Your task to perform on an android device: turn on priority inbox in the gmail app Image 0: 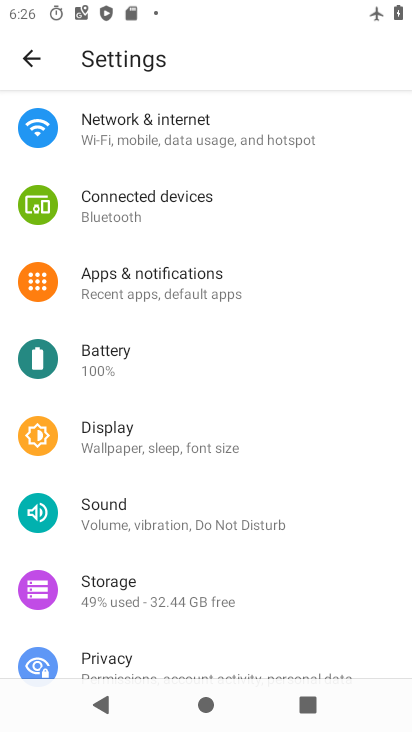
Step 0: press home button
Your task to perform on an android device: turn on priority inbox in the gmail app Image 1: 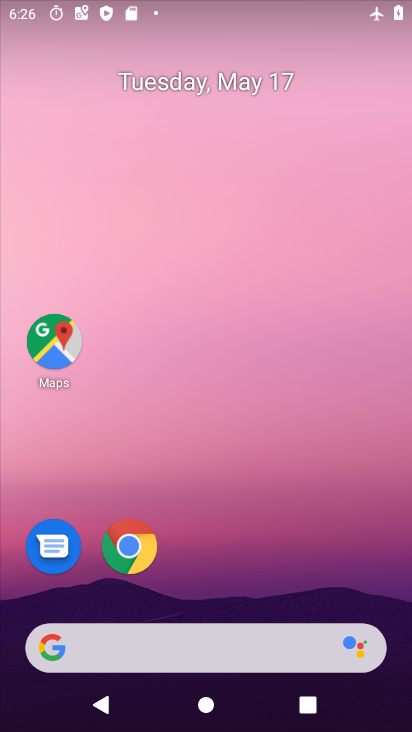
Step 1: drag from (199, 351) to (226, 118)
Your task to perform on an android device: turn on priority inbox in the gmail app Image 2: 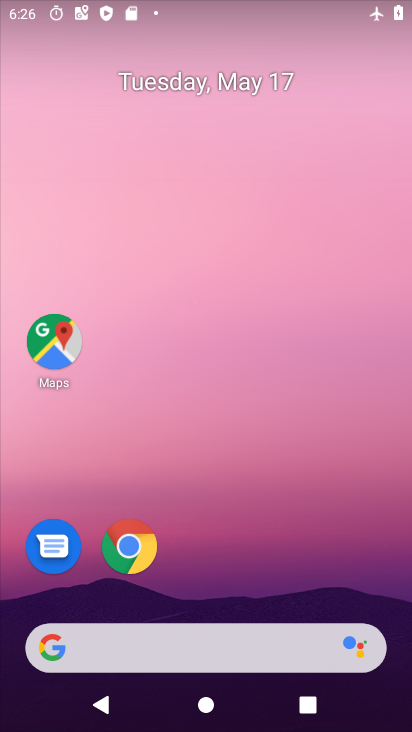
Step 2: drag from (168, 291) to (182, 138)
Your task to perform on an android device: turn on priority inbox in the gmail app Image 3: 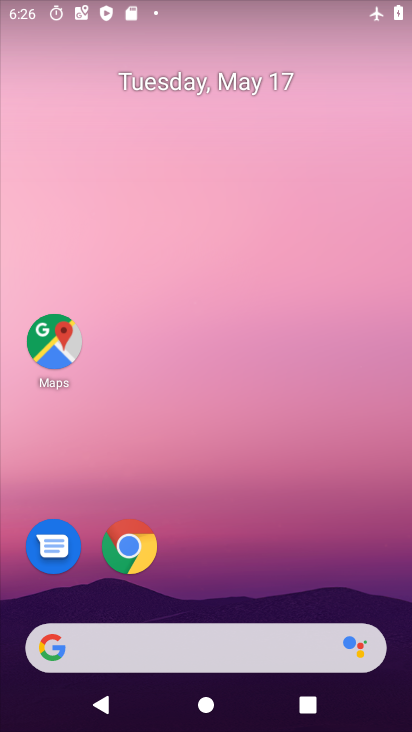
Step 3: drag from (208, 406) to (211, 70)
Your task to perform on an android device: turn on priority inbox in the gmail app Image 4: 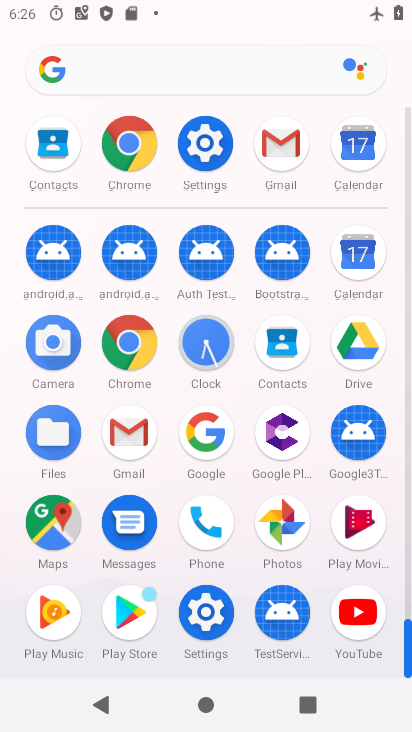
Step 4: click (279, 147)
Your task to perform on an android device: turn on priority inbox in the gmail app Image 5: 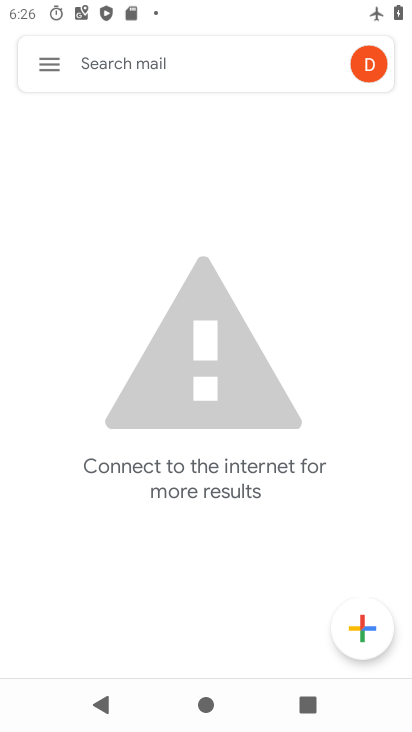
Step 5: click (59, 68)
Your task to perform on an android device: turn on priority inbox in the gmail app Image 6: 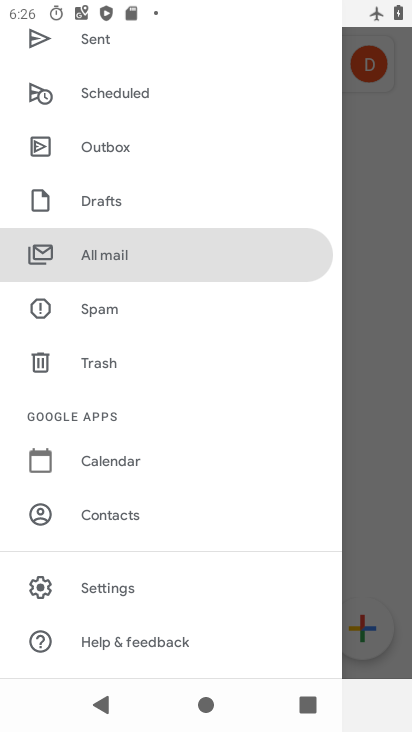
Step 6: click (103, 590)
Your task to perform on an android device: turn on priority inbox in the gmail app Image 7: 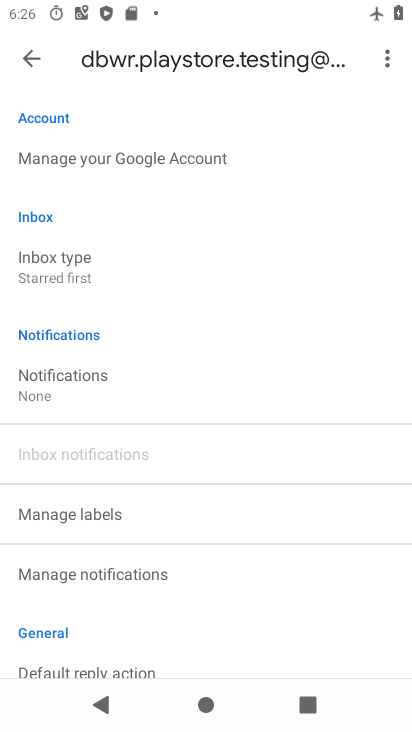
Step 7: click (65, 273)
Your task to perform on an android device: turn on priority inbox in the gmail app Image 8: 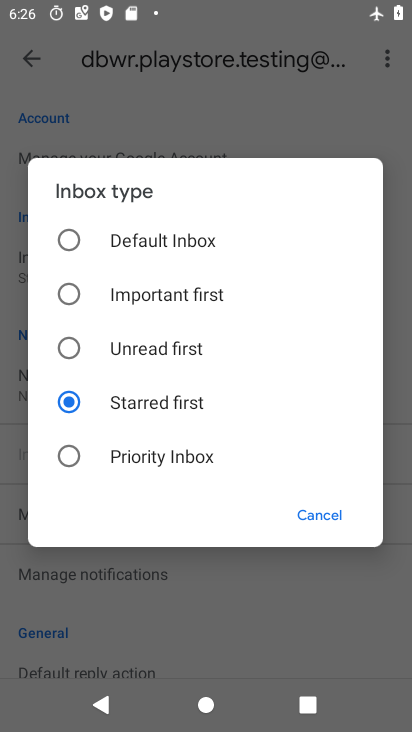
Step 8: click (72, 466)
Your task to perform on an android device: turn on priority inbox in the gmail app Image 9: 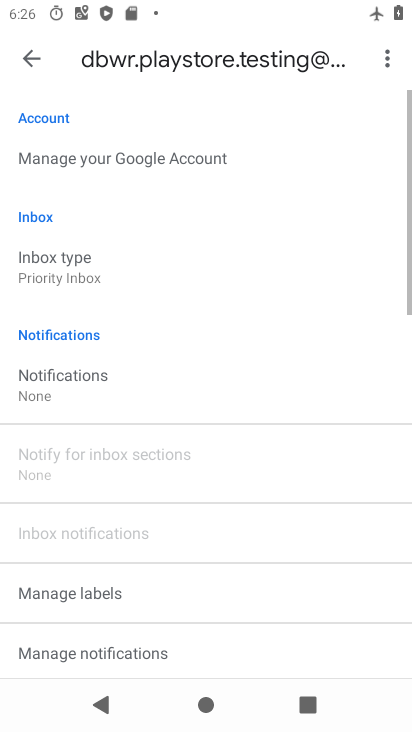
Step 9: task complete